Your task to perform on an android device: Open ESPN.com Image 0: 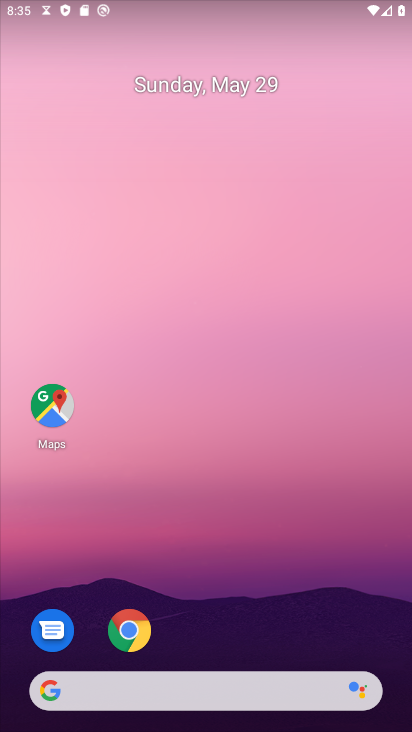
Step 0: click (137, 638)
Your task to perform on an android device: Open ESPN.com Image 1: 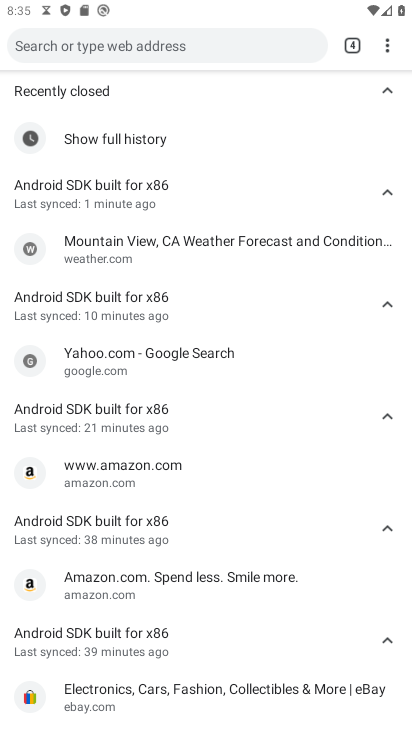
Step 1: click (359, 46)
Your task to perform on an android device: Open ESPN.com Image 2: 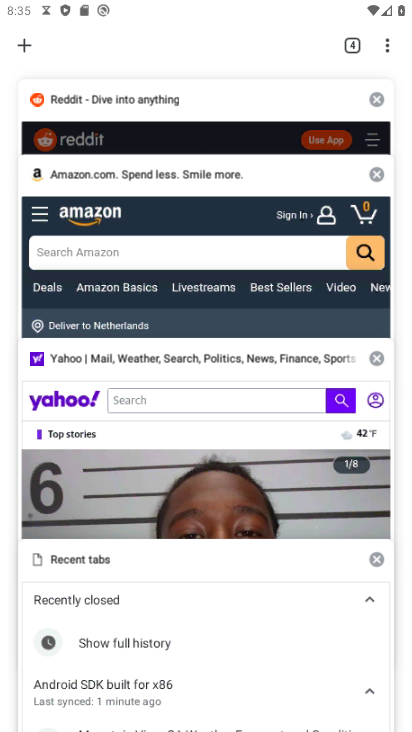
Step 2: click (18, 55)
Your task to perform on an android device: Open ESPN.com Image 3: 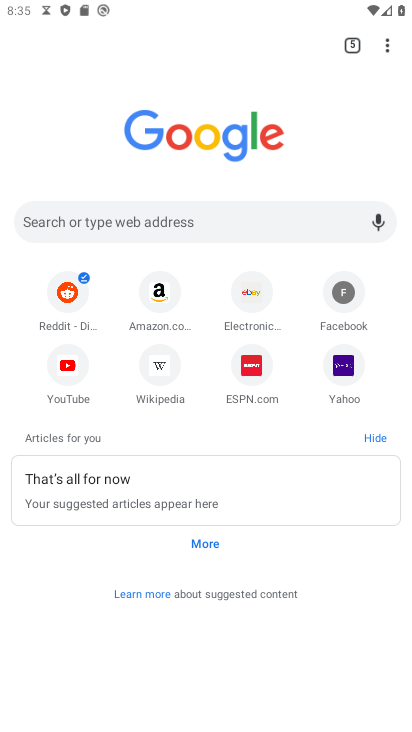
Step 3: click (262, 365)
Your task to perform on an android device: Open ESPN.com Image 4: 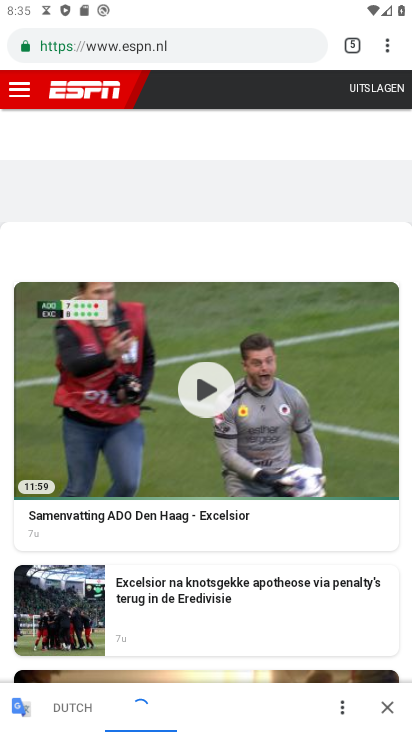
Step 4: task complete